Your task to perform on an android device: What's on my calendar tomorrow? Image 0: 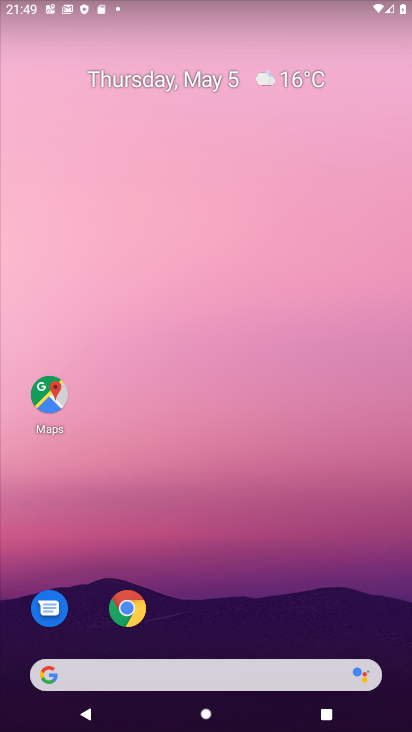
Step 0: drag from (254, 616) to (317, 111)
Your task to perform on an android device: What's on my calendar tomorrow? Image 1: 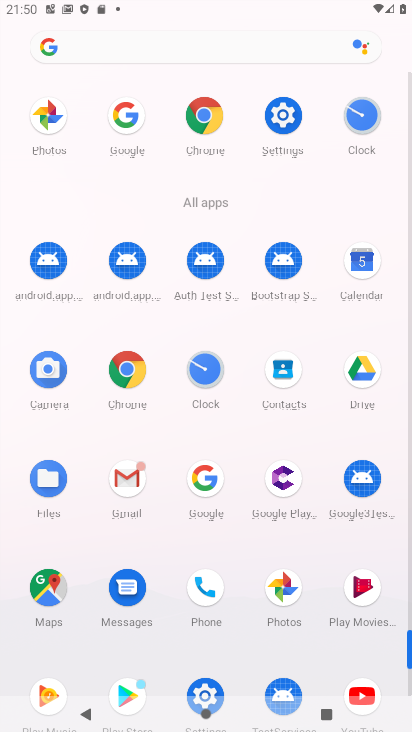
Step 1: click (355, 255)
Your task to perform on an android device: What's on my calendar tomorrow? Image 2: 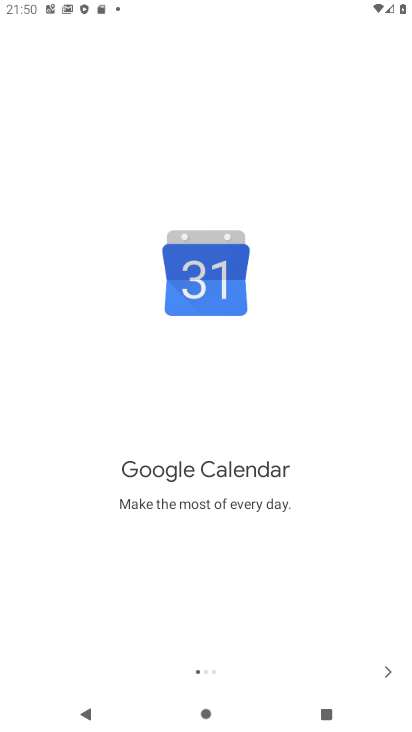
Step 2: click (390, 670)
Your task to perform on an android device: What's on my calendar tomorrow? Image 3: 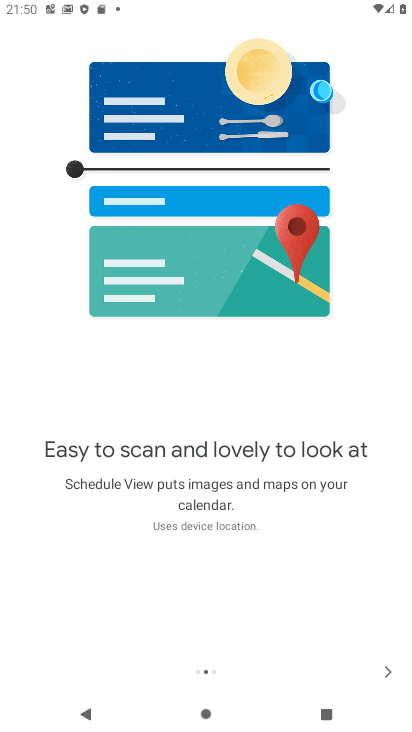
Step 3: click (390, 670)
Your task to perform on an android device: What's on my calendar tomorrow? Image 4: 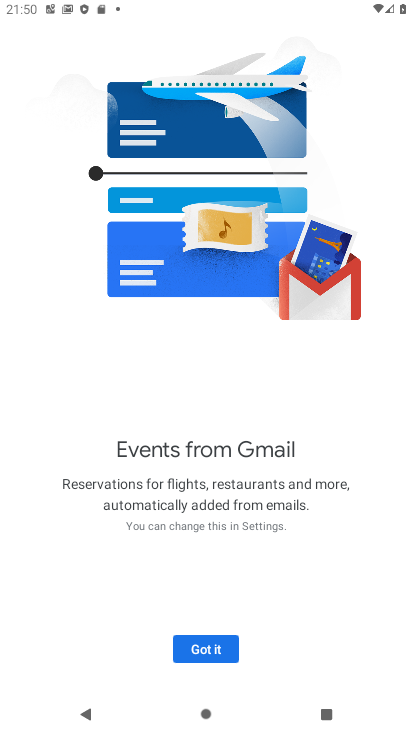
Step 4: click (193, 649)
Your task to perform on an android device: What's on my calendar tomorrow? Image 5: 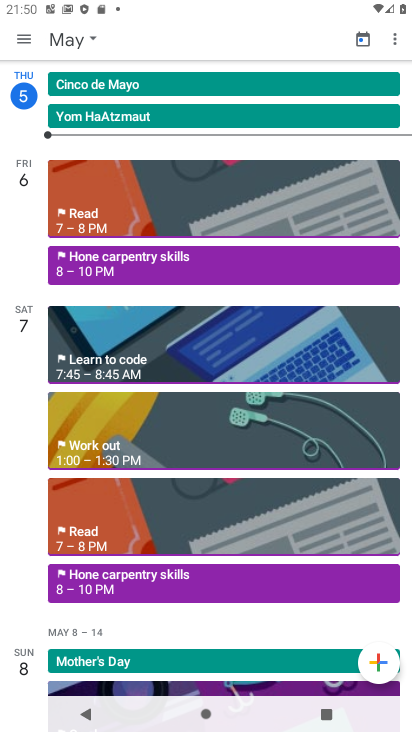
Step 5: click (30, 41)
Your task to perform on an android device: What's on my calendar tomorrow? Image 6: 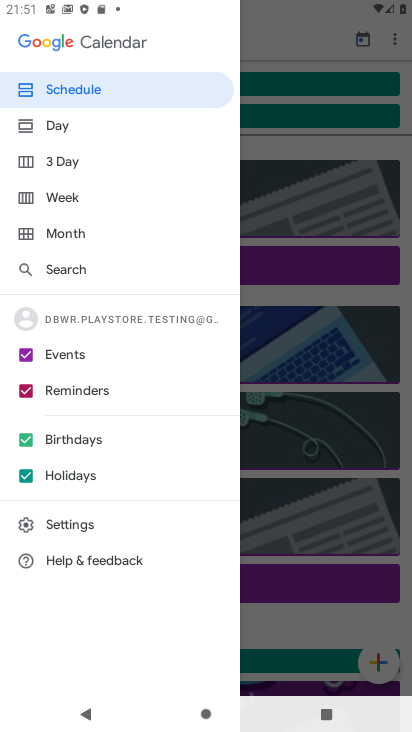
Step 6: click (263, 44)
Your task to perform on an android device: What's on my calendar tomorrow? Image 7: 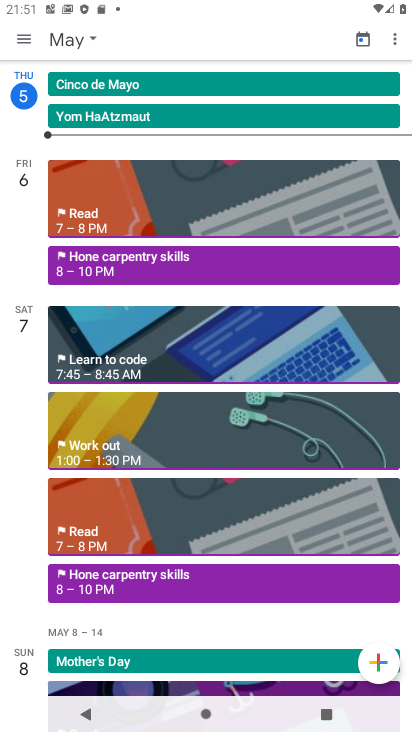
Step 7: click (62, 46)
Your task to perform on an android device: What's on my calendar tomorrow? Image 8: 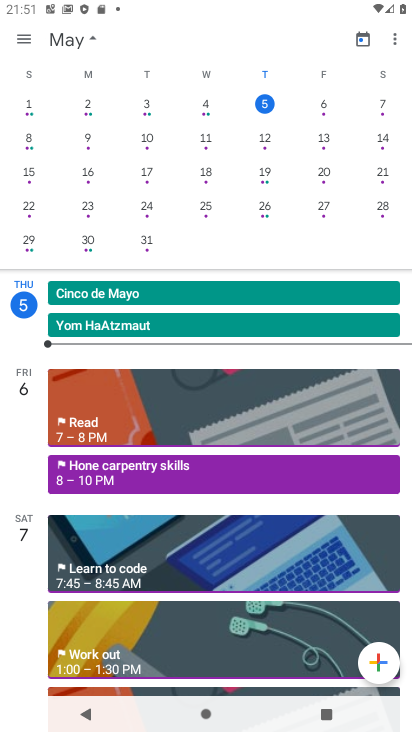
Step 8: click (381, 97)
Your task to perform on an android device: What's on my calendar tomorrow? Image 9: 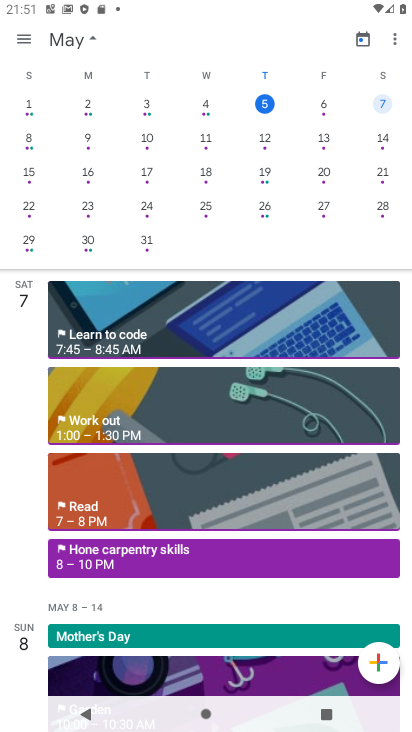
Step 9: task complete